Your task to perform on an android device: toggle priority inbox in the gmail app Image 0: 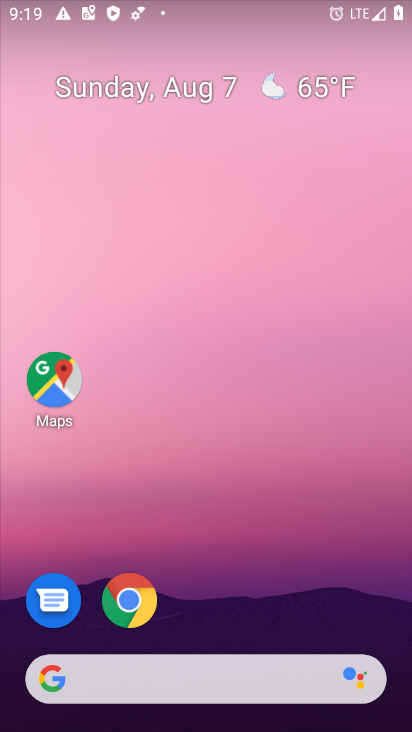
Step 0: drag from (180, 498) to (178, 41)
Your task to perform on an android device: toggle priority inbox in the gmail app Image 1: 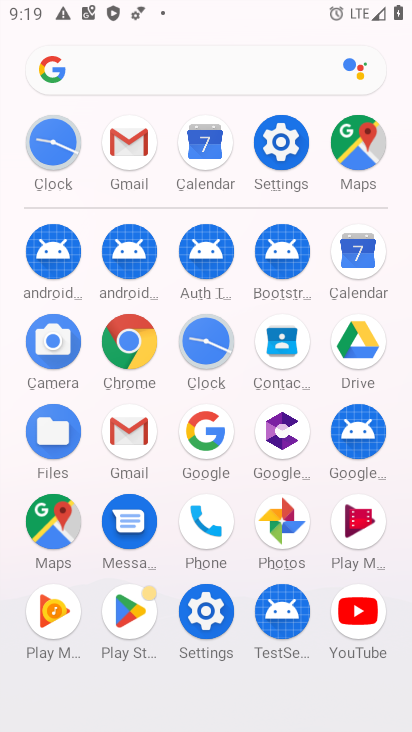
Step 1: click (129, 149)
Your task to perform on an android device: toggle priority inbox in the gmail app Image 2: 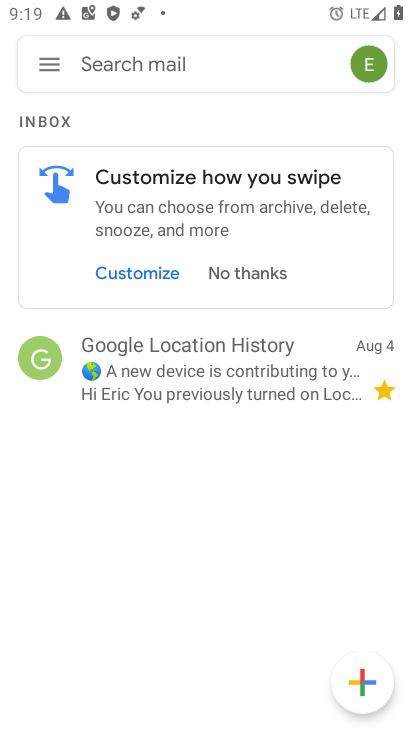
Step 2: click (49, 63)
Your task to perform on an android device: toggle priority inbox in the gmail app Image 3: 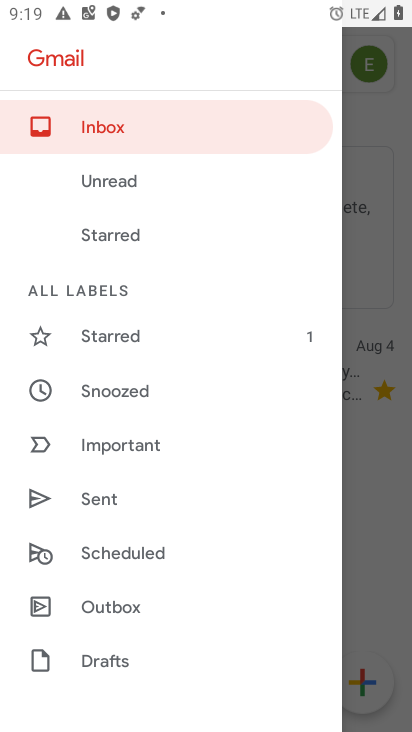
Step 3: drag from (112, 474) to (131, 310)
Your task to perform on an android device: toggle priority inbox in the gmail app Image 4: 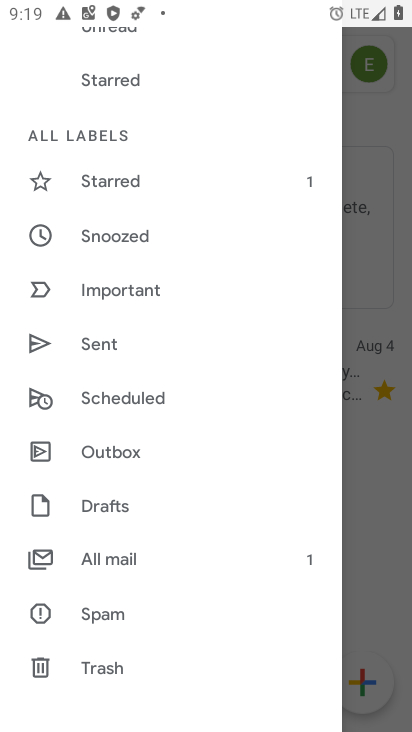
Step 4: drag from (165, 592) to (197, 242)
Your task to perform on an android device: toggle priority inbox in the gmail app Image 5: 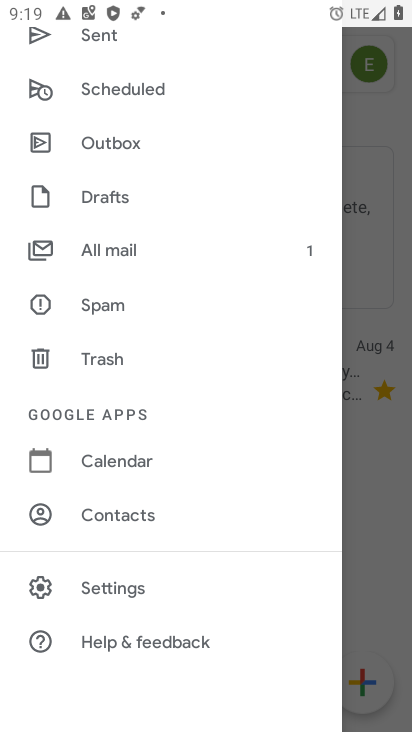
Step 5: click (135, 591)
Your task to perform on an android device: toggle priority inbox in the gmail app Image 6: 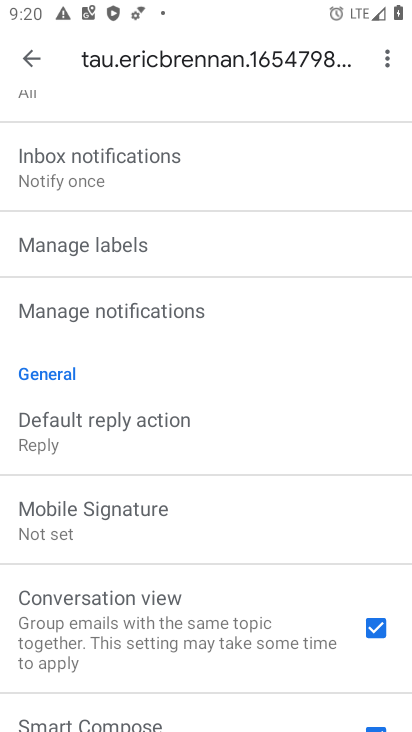
Step 6: drag from (147, 489) to (172, 720)
Your task to perform on an android device: toggle priority inbox in the gmail app Image 7: 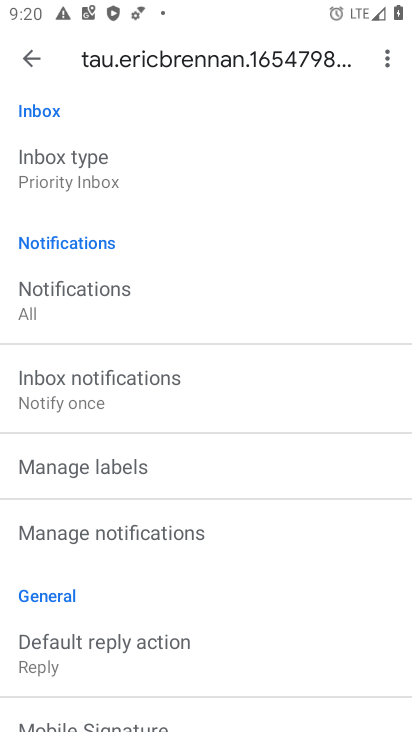
Step 7: click (48, 195)
Your task to perform on an android device: toggle priority inbox in the gmail app Image 8: 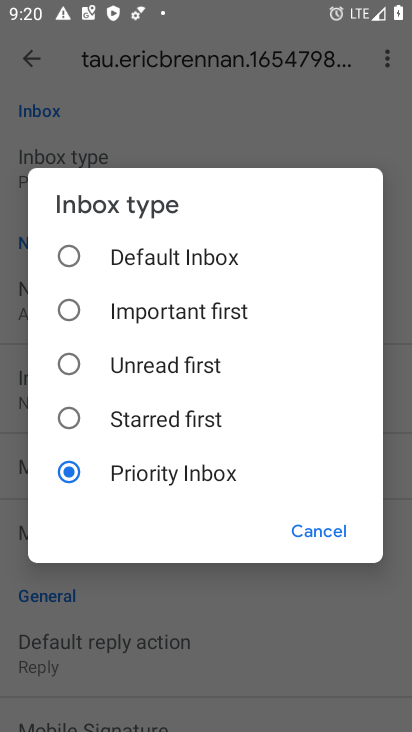
Step 8: click (68, 260)
Your task to perform on an android device: toggle priority inbox in the gmail app Image 9: 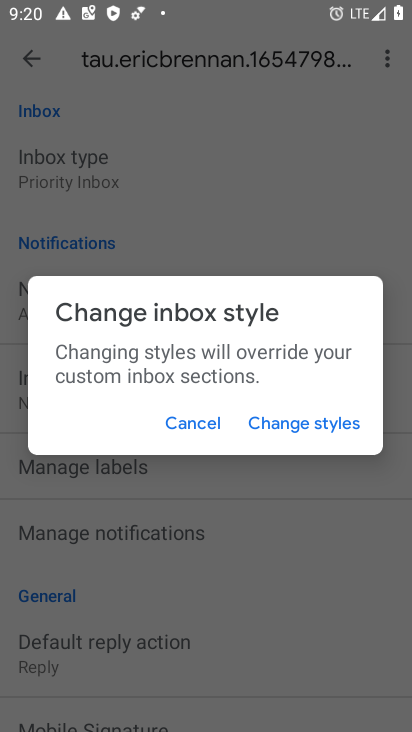
Step 9: task complete